Your task to perform on an android device: Go to Yahoo.com Image 0: 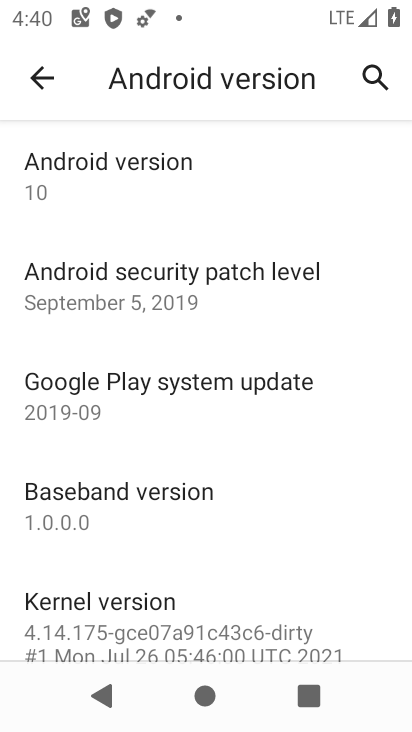
Step 0: press home button
Your task to perform on an android device: Go to Yahoo.com Image 1: 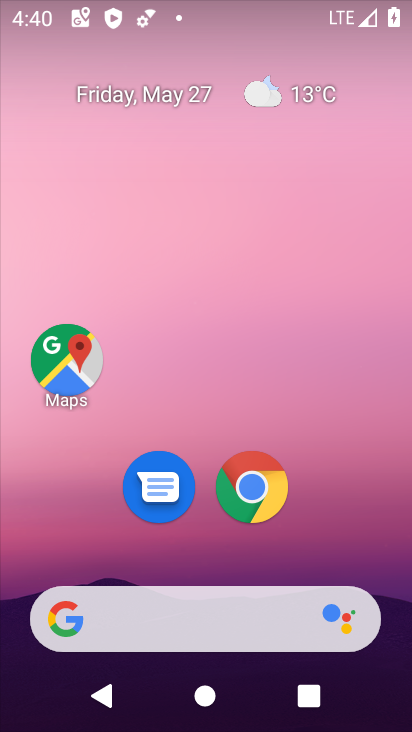
Step 1: click (255, 496)
Your task to perform on an android device: Go to Yahoo.com Image 2: 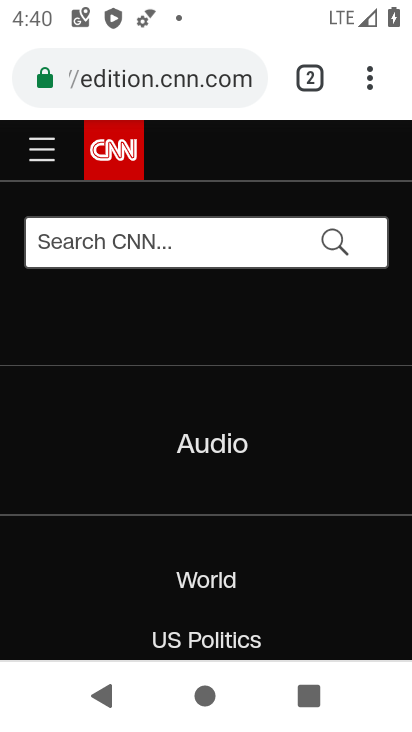
Step 2: click (218, 86)
Your task to perform on an android device: Go to Yahoo.com Image 3: 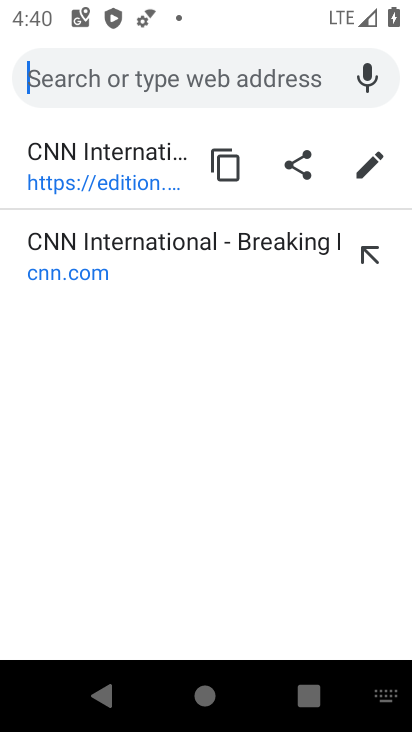
Step 3: type "yahoo.com"
Your task to perform on an android device: Go to Yahoo.com Image 4: 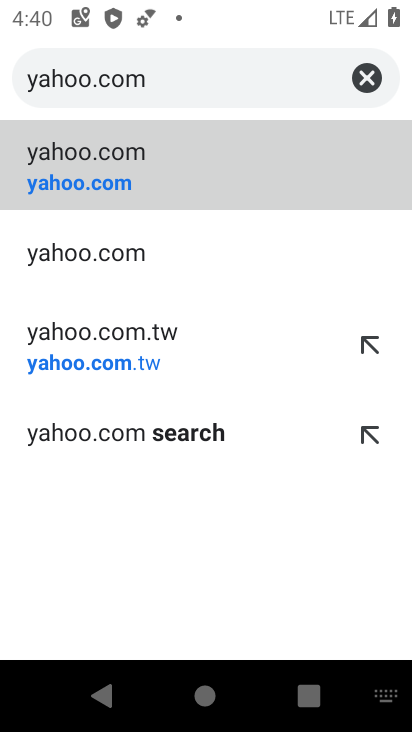
Step 4: click (82, 179)
Your task to perform on an android device: Go to Yahoo.com Image 5: 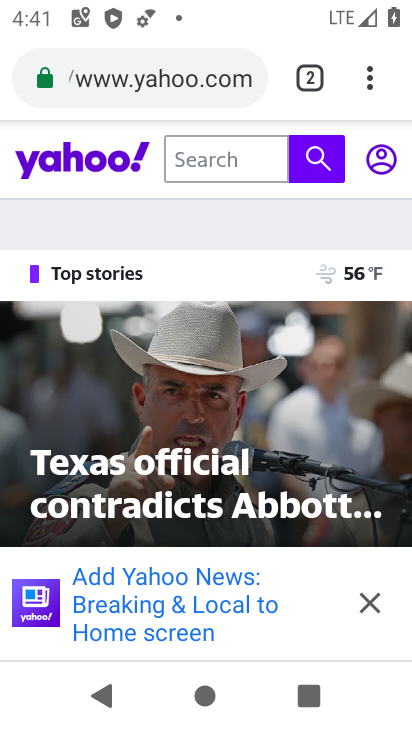
Step 5: task complete